Your task to perform on an android device: check android version Image 0: 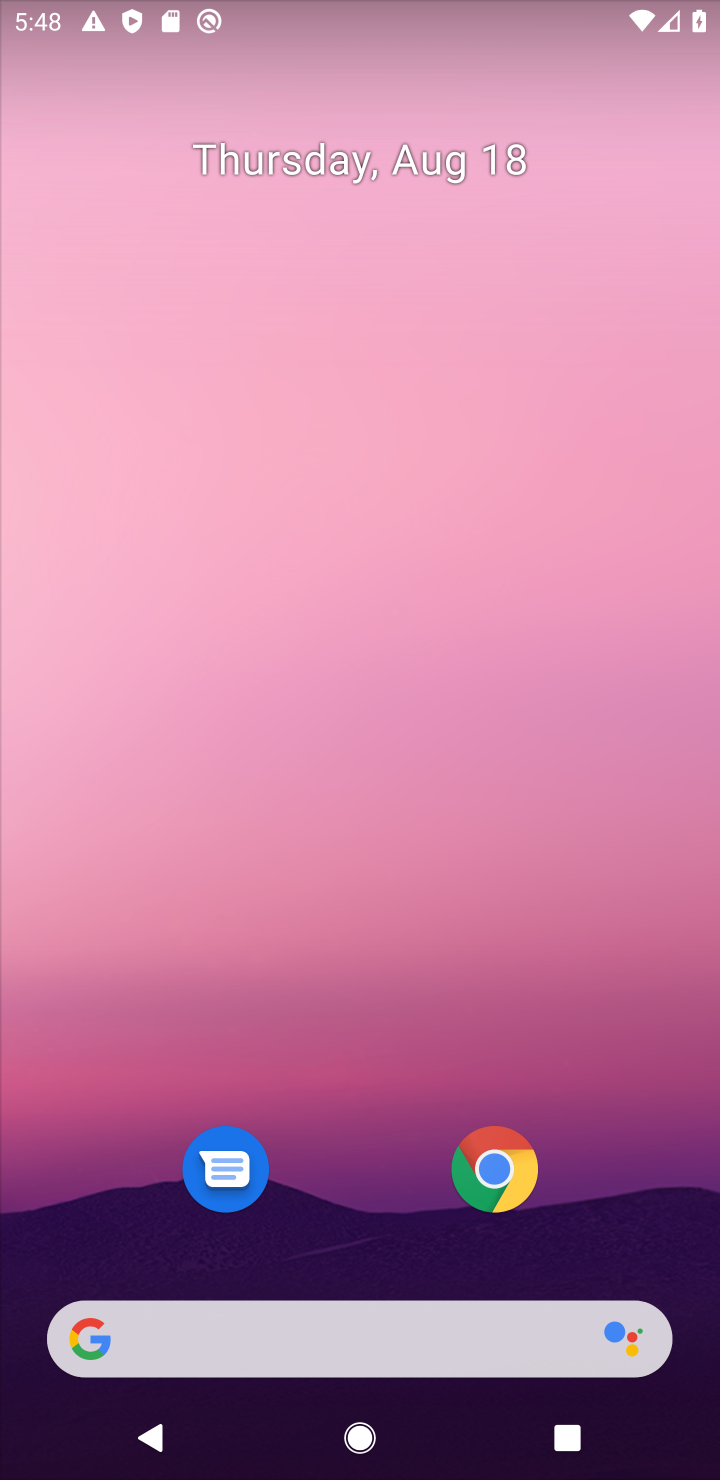
Step 0: press home button
Your task to perform on an android device: check android version Image 1: 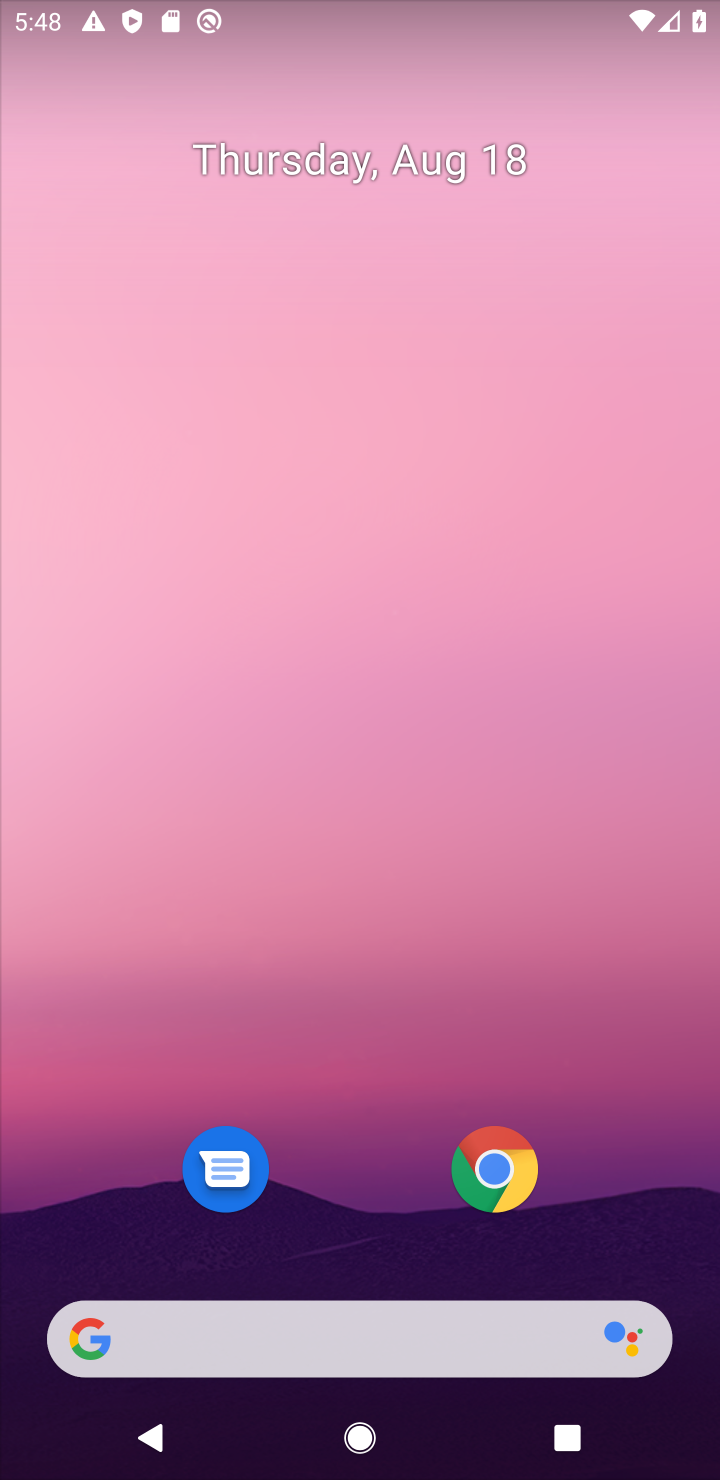
Step 1: drag from (381, 1023) to (516, 20)
Your task to perform on an android device: check android version Image 2: 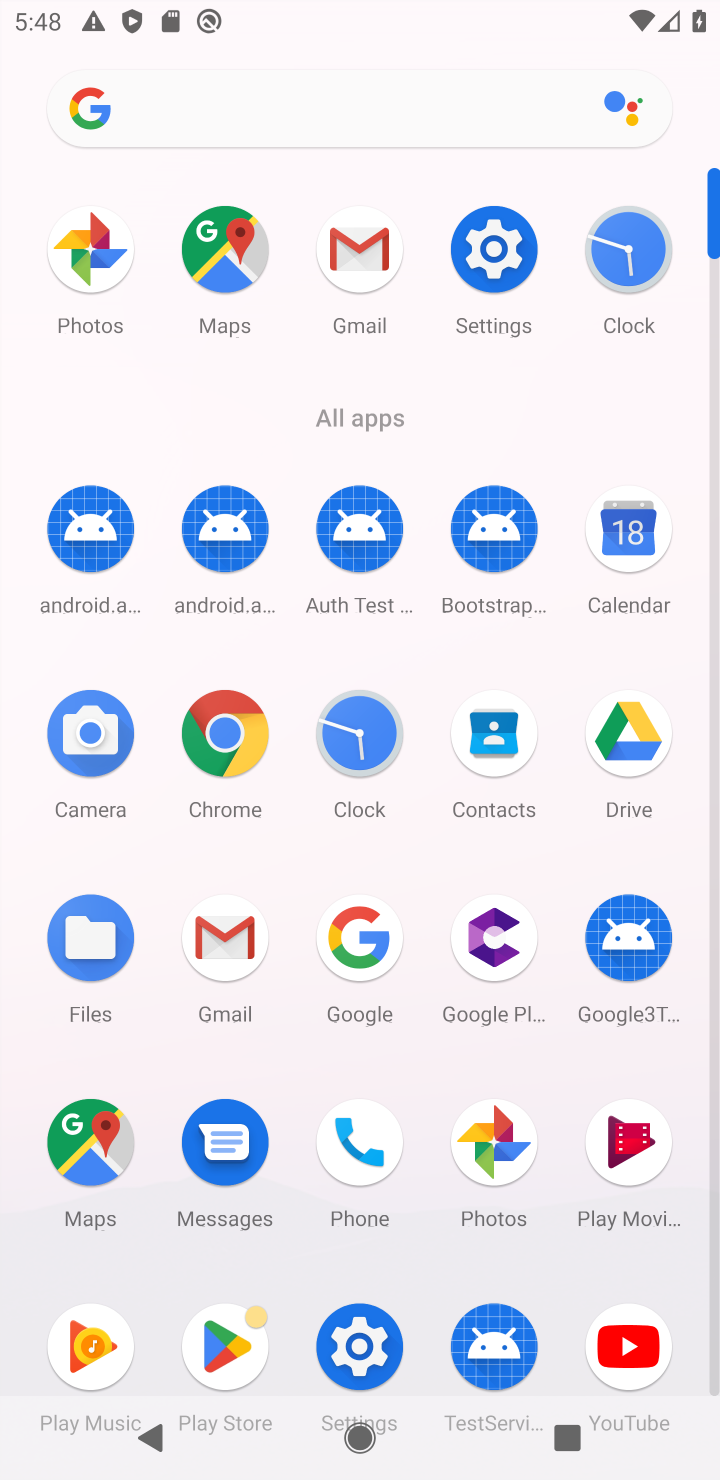
Step 2: click (507, 288)
Your task to perform on an android device: check android version Image 3: 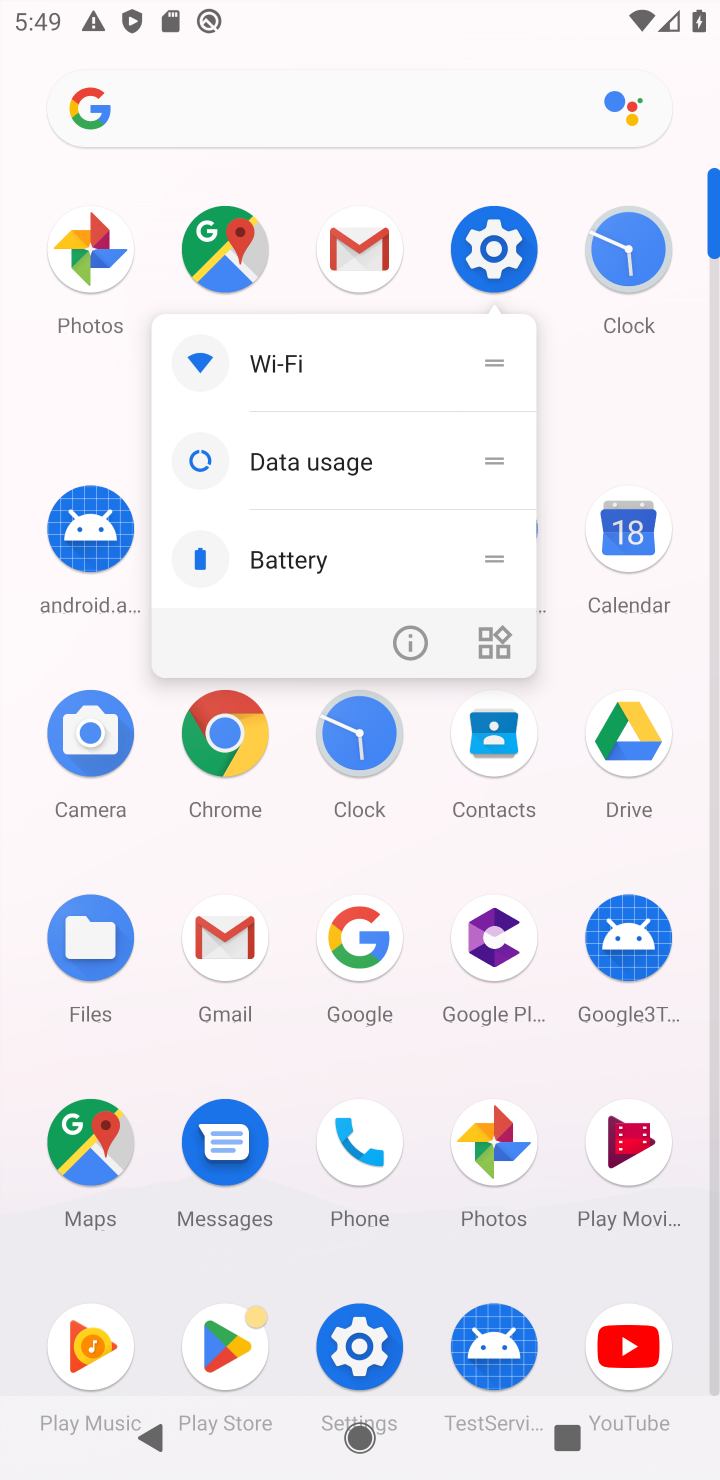
Step 3: click (501, 250)
Your task to perform on an android device: check android version Image 4: 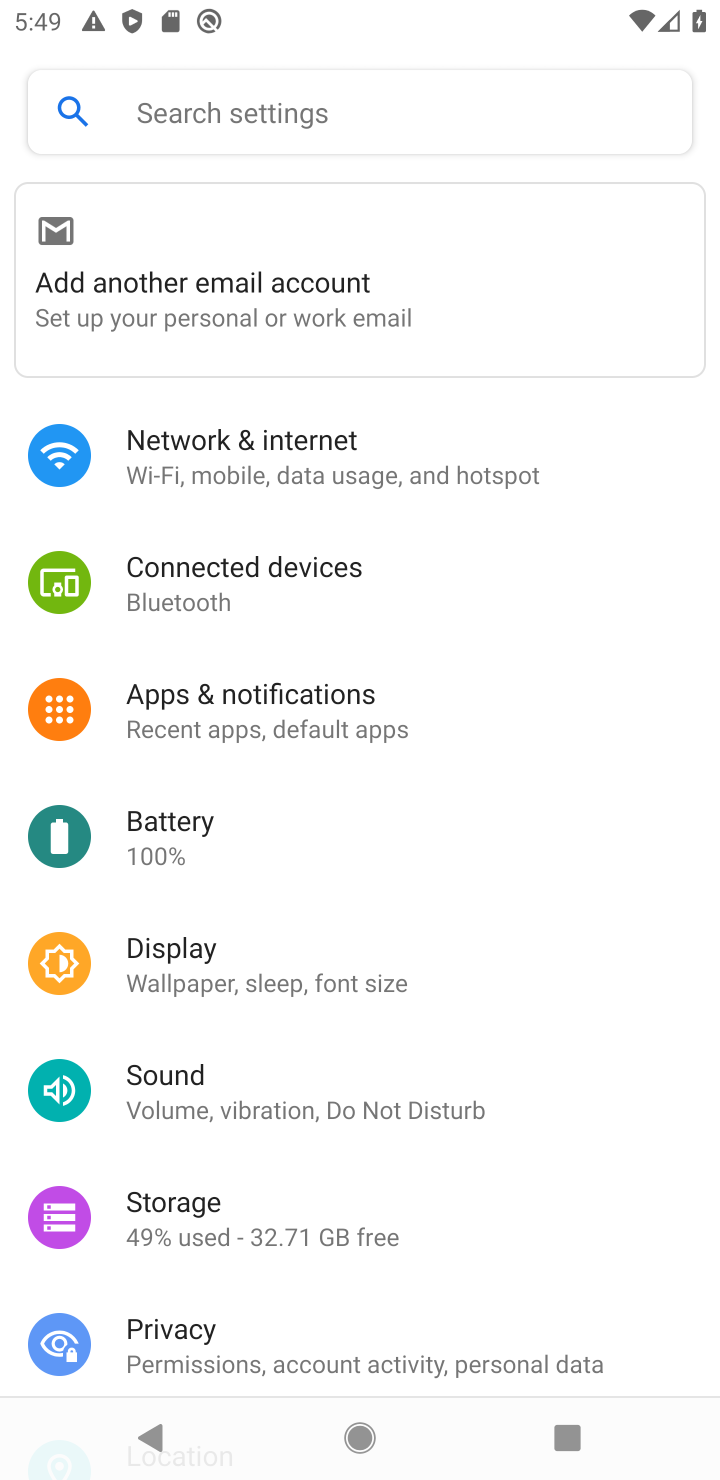
Step 4: drag from (490, 1288) to (390, 120)
Your task to perform on an android device: check android version Image 5: 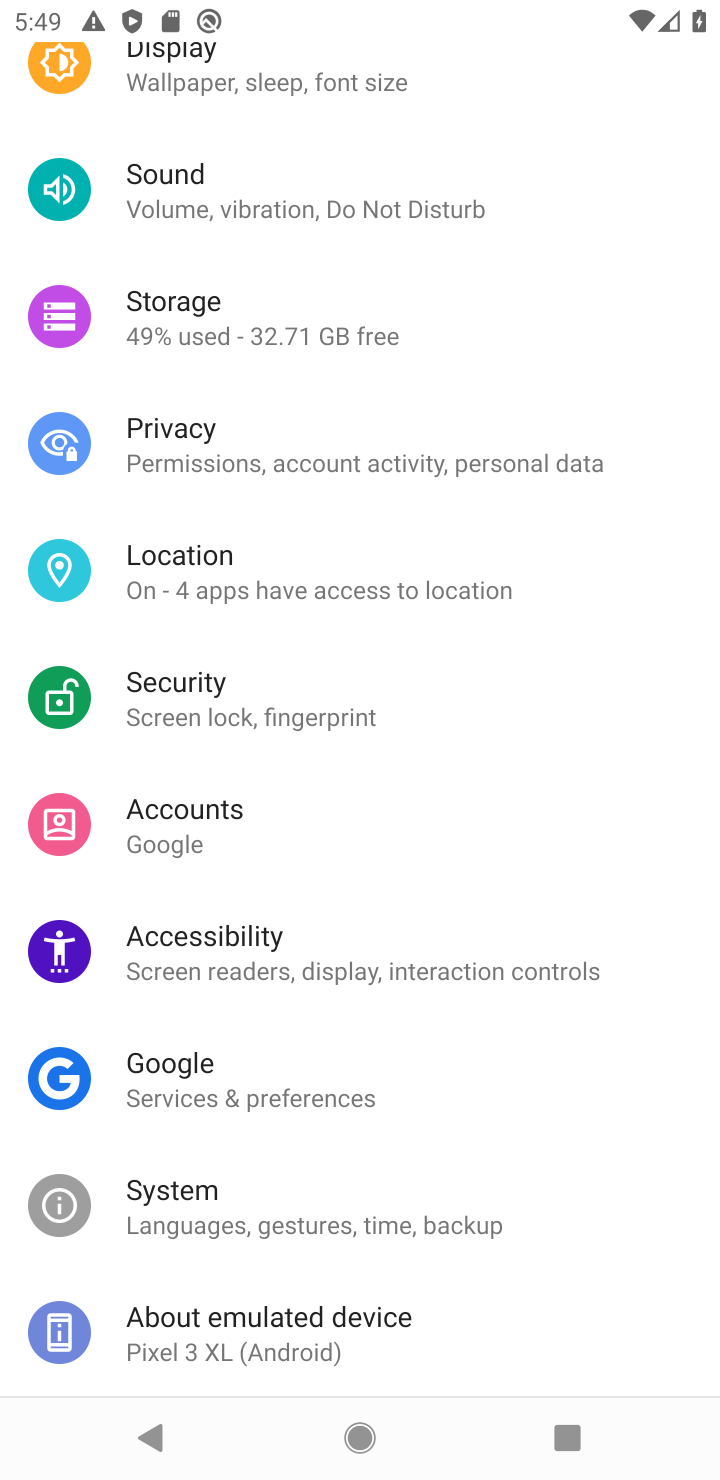
Step 5: drag from (585, 1229) to (464, 153)
Your task to perform on an android device: check android version Image 6: 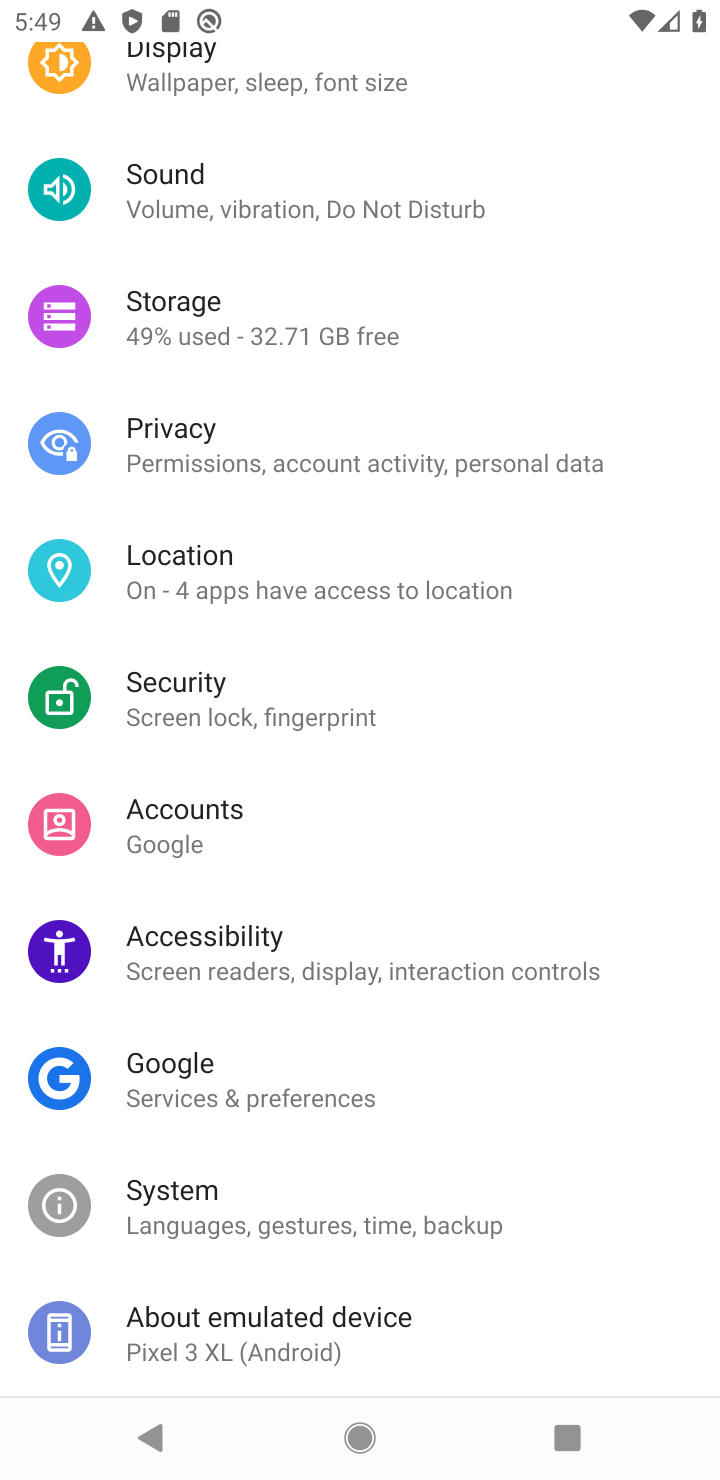
Step 6: click (217, 1332)
Your task to perform on an android device: check android version Image 7: 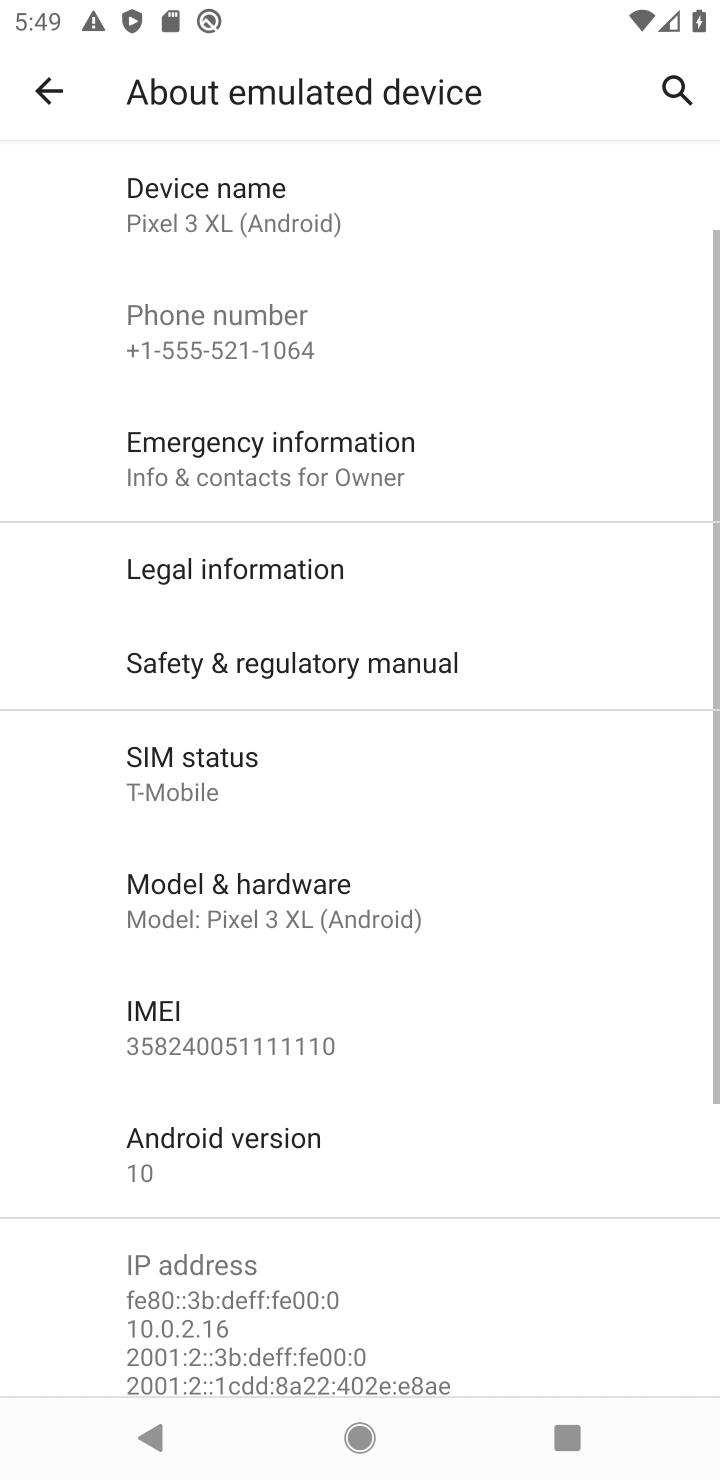
Step 7: task complete